Your task to perform on an android device: Go to Android settings Image 0: 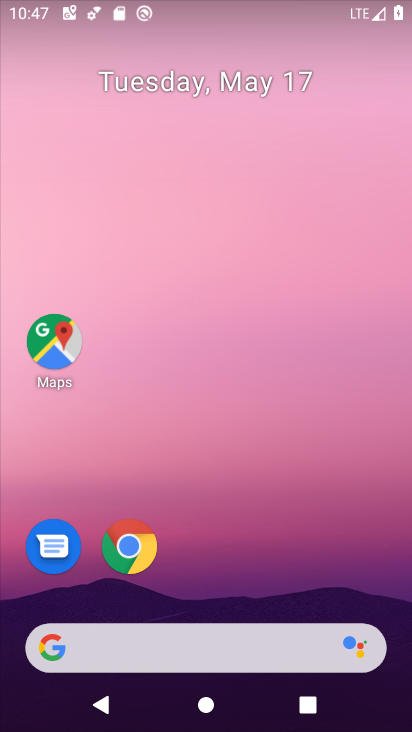
Step 0: drag from (234, 561) to (278, 101)
Your task to perform on an android device: Go to Android settings Image 1: 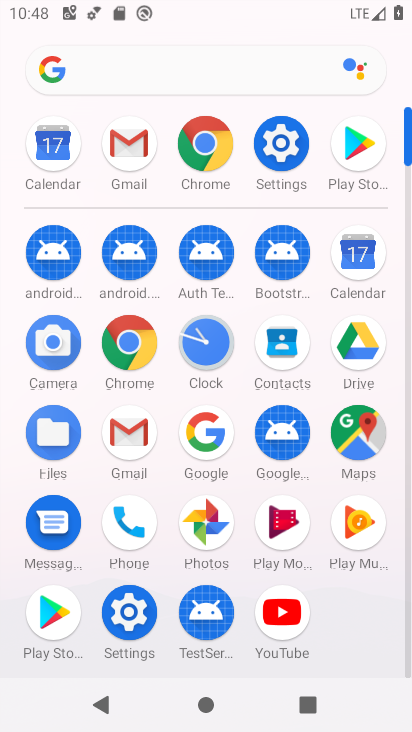
Step 1: click (149, 627)
Your task to perform on an android device: Go to Android settings Image 2: 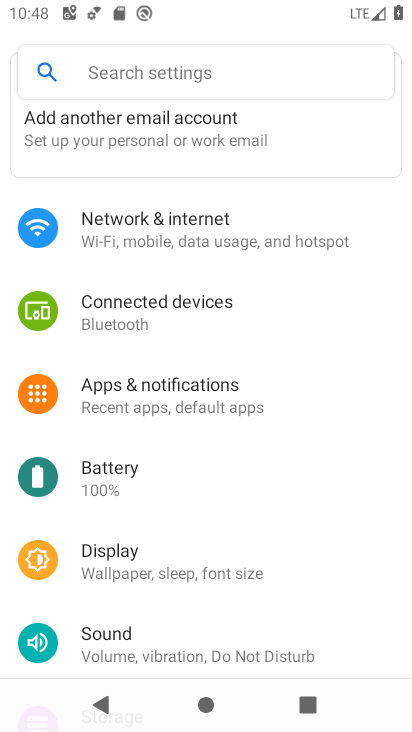
Step 2: drag from (155, 445) to (197, 113)
Your task to perform on an android device: Go to Android settings Image 3: 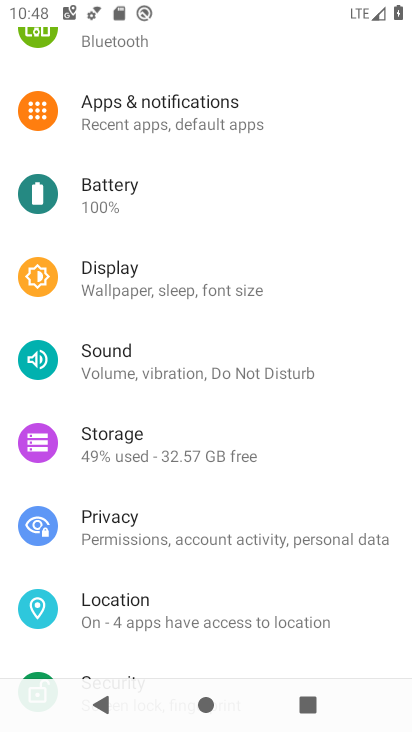
Step 3: drag from (147, 558) to (181, 257)
Your task to perform on an android device: Go to Android settings Image 4: 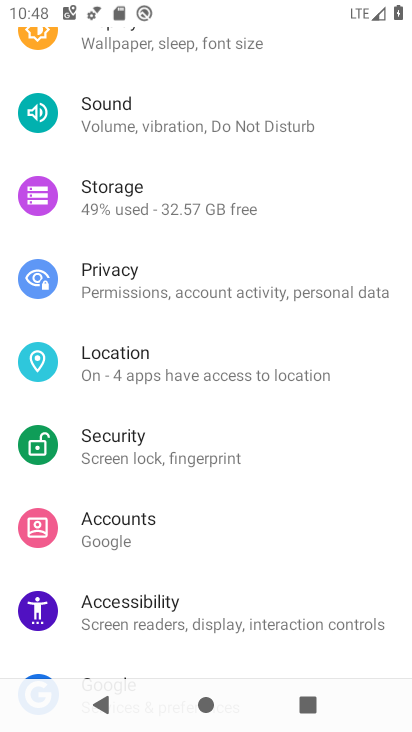
Step 4: drag from (137, 542) to (182, 163)
Your task to perform on an android device: Go to Android settings Image 5: 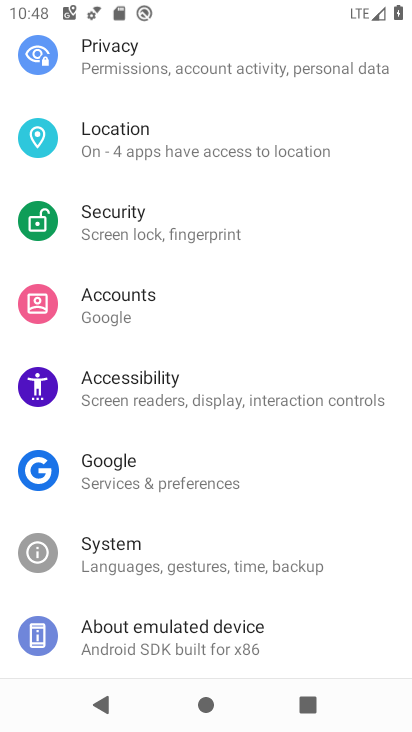
Step 5: click (146, 643)
Your task to perform on an android device: Go to Android settings Image 6: 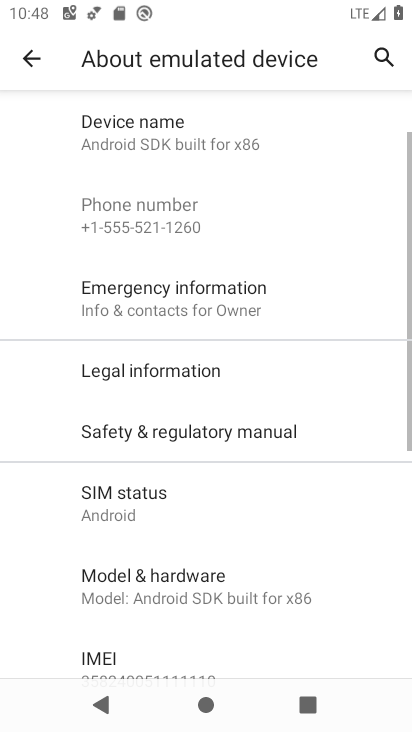
Step 6: drag from (177, 481) to (198, 269)
Your task to perform on an android device: Go to Android settings Image 7: 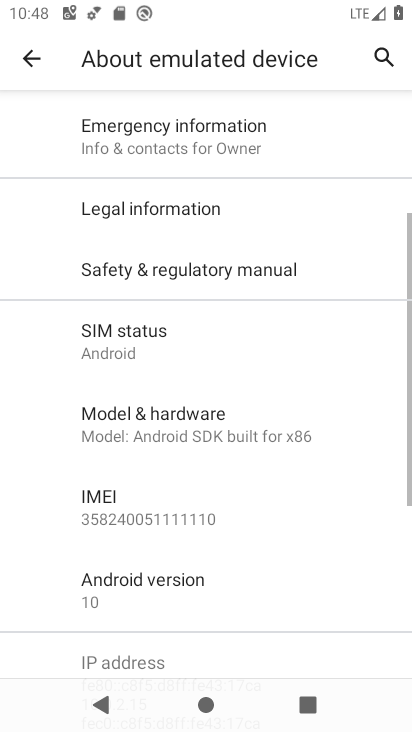
Step 7: click (160, 599)
Your task to perform on an android device: Go to Android settings Image 8: 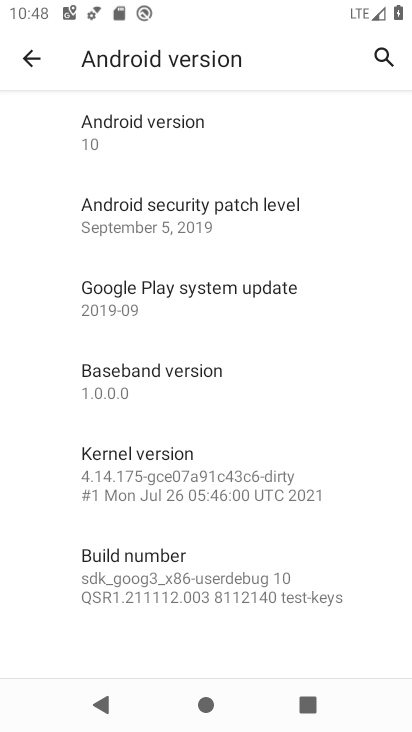
Step 8: task complete